Your task to perform on an android device: open chrome and create a bookmark for the current page Image 0: 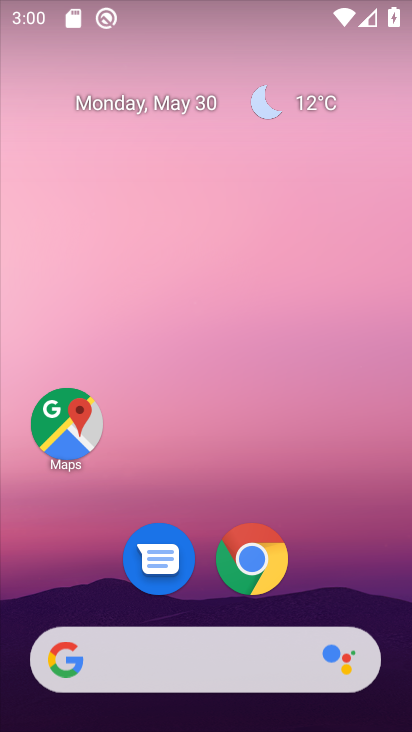
Step 0: click (274, 569)
Your task to perform on an android device: open chrome and create a bookmark for the current page Image 1: 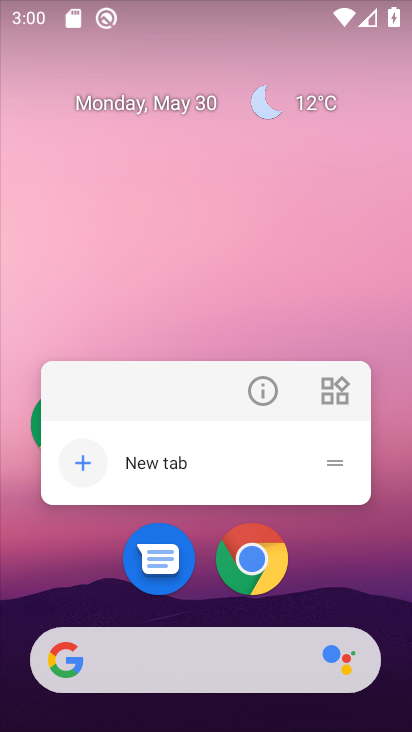
Step 1: click (251, 554)
Your task to perform on an android device: open chrome and create a bookmark for the current page Image 2: 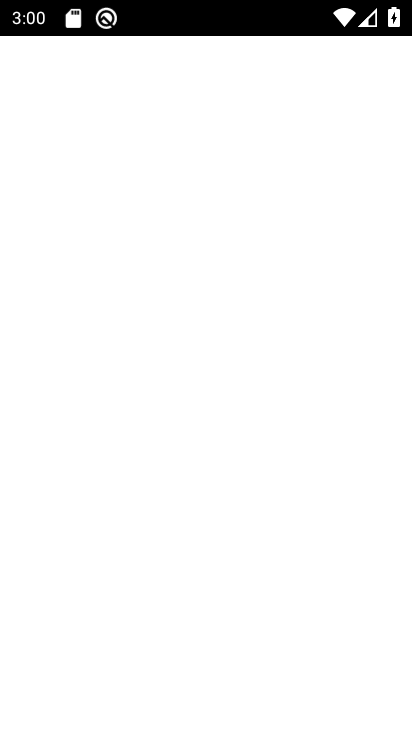
Step 2: click (271, 575)
Your task to perform on an android device: open chrome and create a bookmark for the current page Image 3: 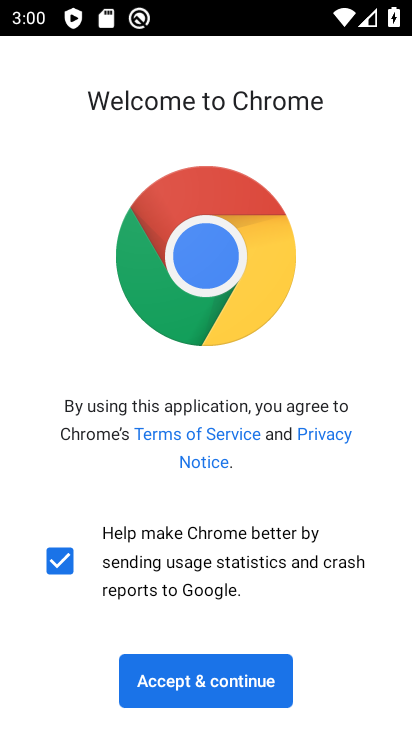
Step 3: click (144, 691)
Your task to perform on an android device: open chrome and create a bookmark for the current page Image 4: 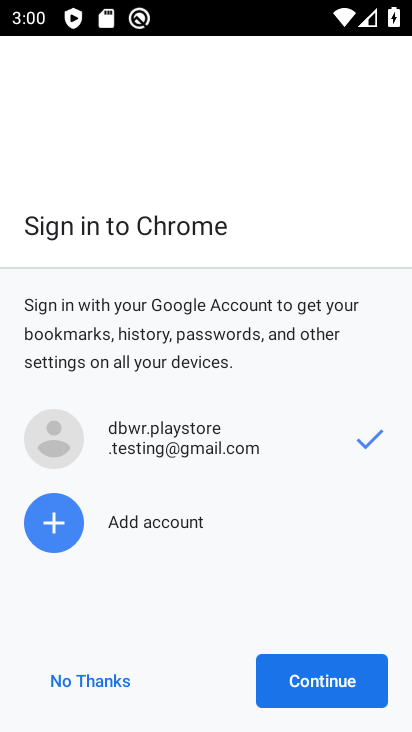
Step 4: click (299, 676)
Your task to perform on an android device: open chrome and create a bookmark for the current page Image 5: 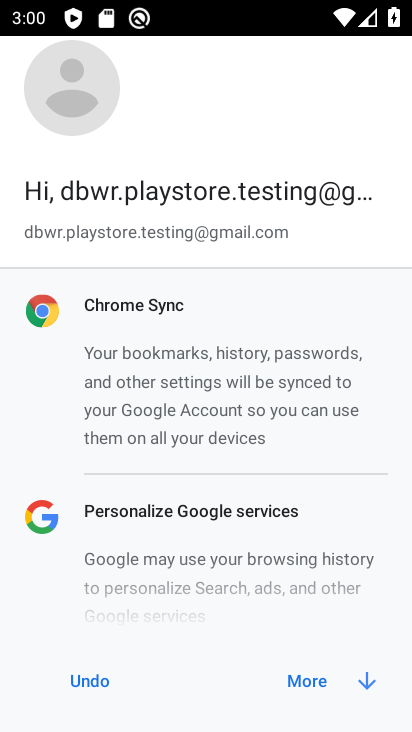
Step 5: click (302, 679)
Your task to perform on an android device: open chrome and create a bookmark for the current page Image 6: 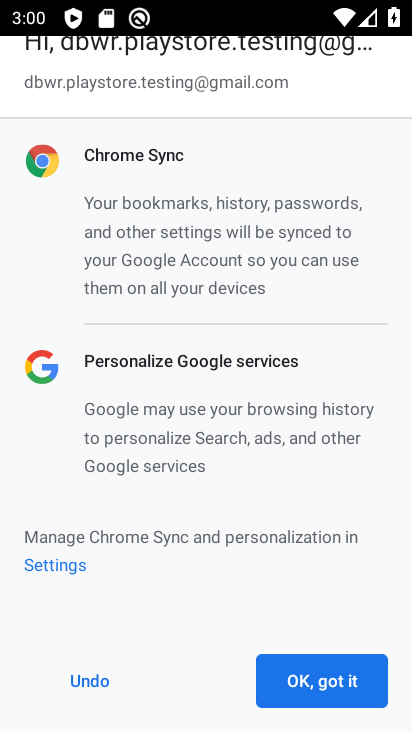
Step 6: click (311, 684)
Your task to perform on an android device: open chrome and create a bookmark for the current page Image 7: 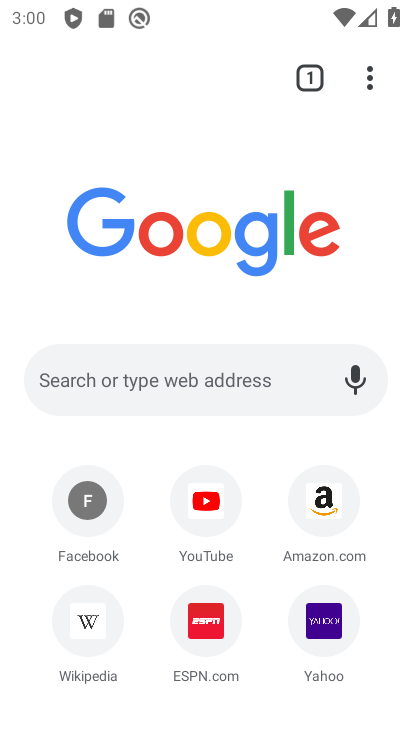
Step 7: task complete